Your task to perform on an android device: Turn off the flashlight Image 0: 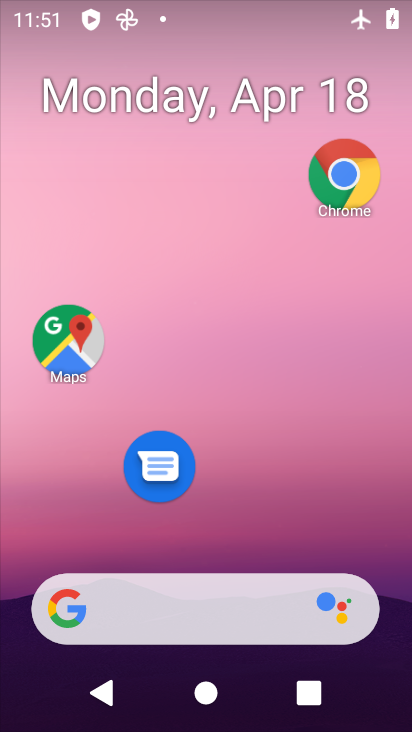
Step 0: drag from (331, 11) to (325, 328)
Your task to perform on an android device: Turn off the flashlight Image 1: 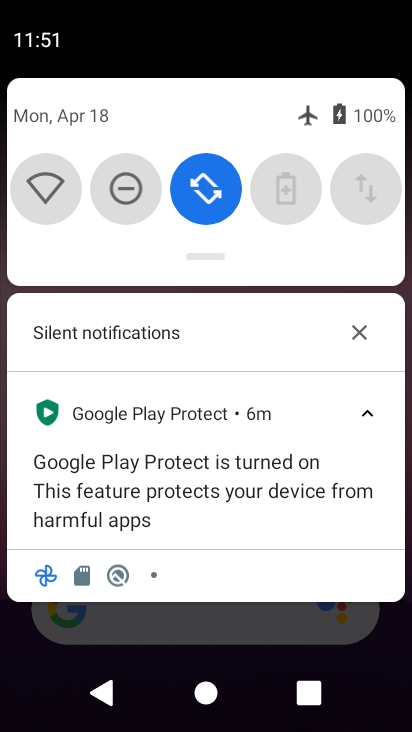
Step 1: task complete